Your task to perform on an android device: toggle priority inbox in the gmail app Image 0: 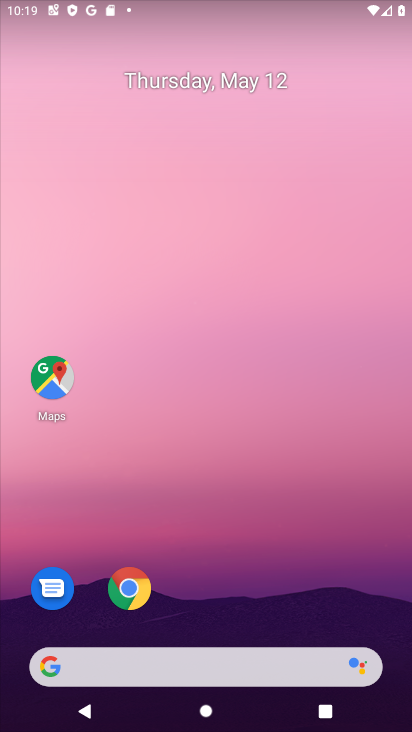
Step 0: drag from (212, 617) to (201, 208)
Your task to perform on an android device: toggle priority inbox in the gmail app Image 1: 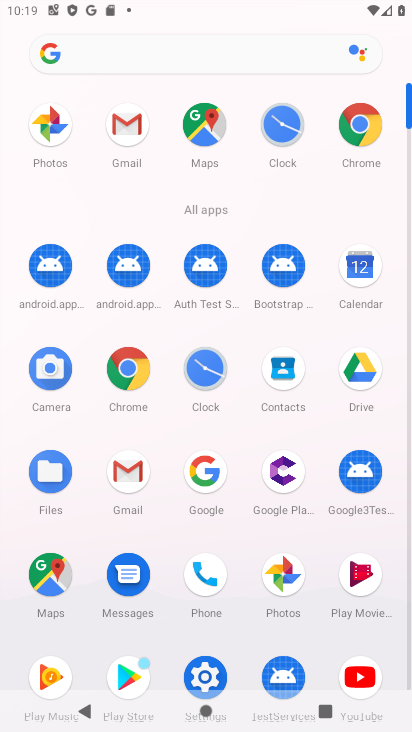
Step 1: click (128, 123)
Your task to perform on an android device: toggle priority inbox in the gmail app Image 2: 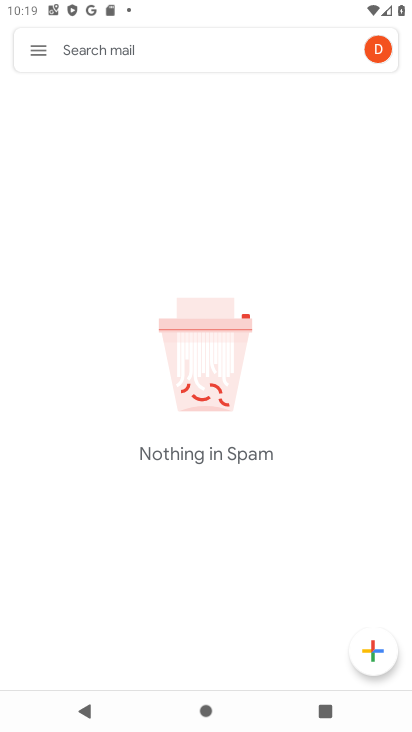
Step 2: click (36, 54)
Your task to perform on an android device: toggle priority inbox in the gmail app Image 3: 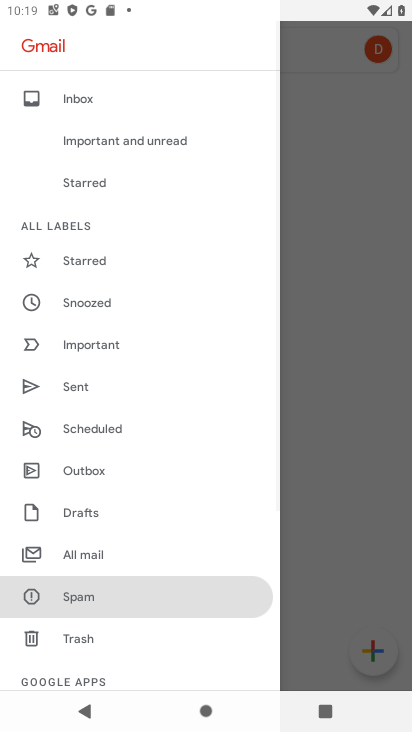
Step 3: drag from (86, 668) to (98, 358)
Your task to perform on an android device: toggle priority inbox in the gmail app Image 4: 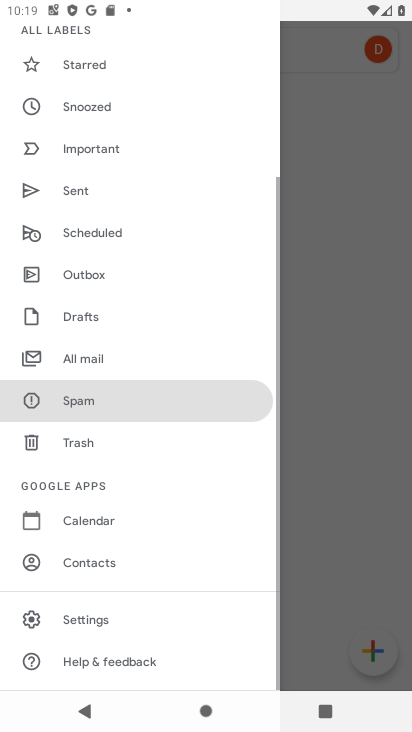
Step 4: click (76, 627)
Your task to perform on an android device: toggle priority inbox in the gmail app Image 5: 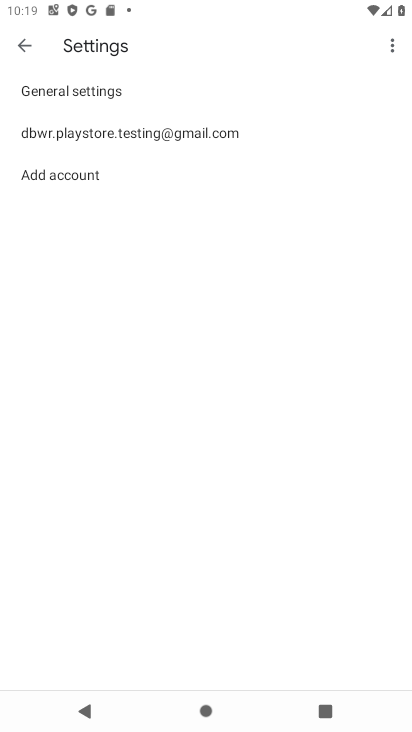
Step 5: click (137, 131)
Your task to perform on an android device: toggle priority inbox in the gmail app Image 6: 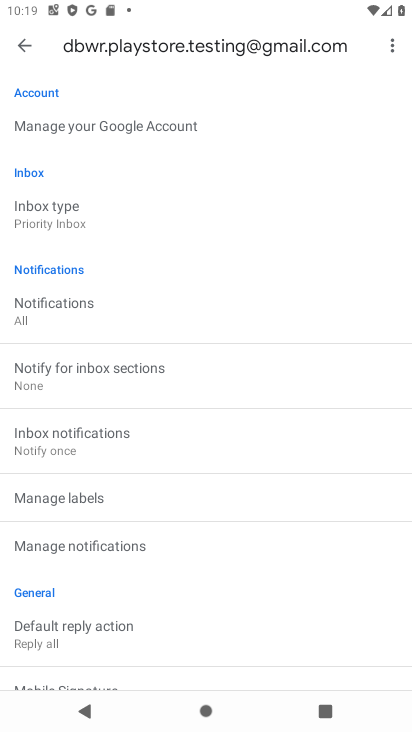
Step 6: click (74, 222)
Your task to perform on an android device: toggle priority inbox in the gmail app Image 7: 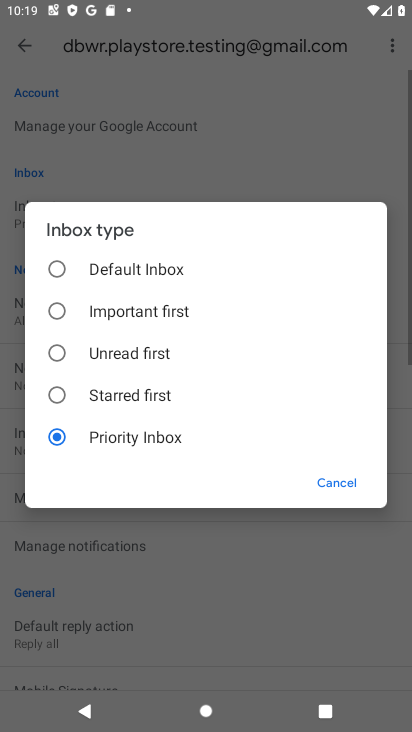
Step 7: click (81, 258)
Your task to perform on an android device: toggle priority inbox in the gmail app Image 8: 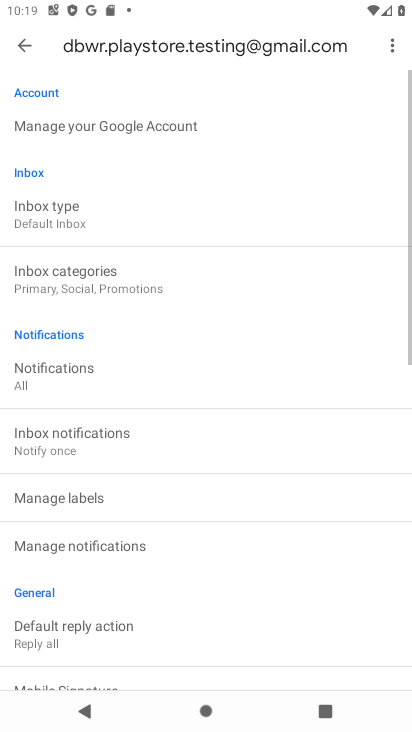
Step 8: task complete